Your task to perform on an android device: Go to sound settings Image 0: 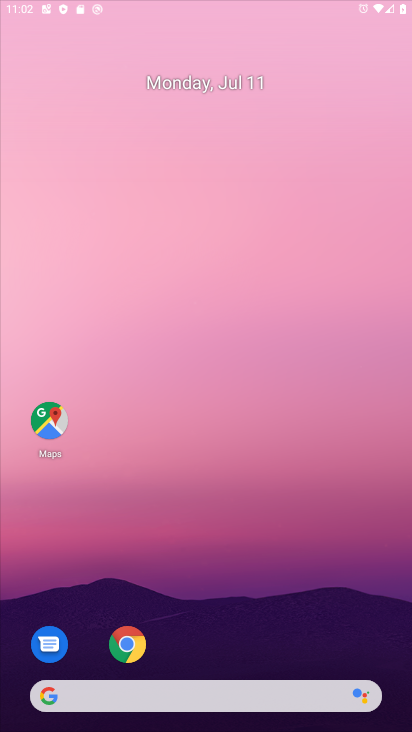
Step 0: press home button
Your task to perform on an android device: Go to sound settings Image 1: 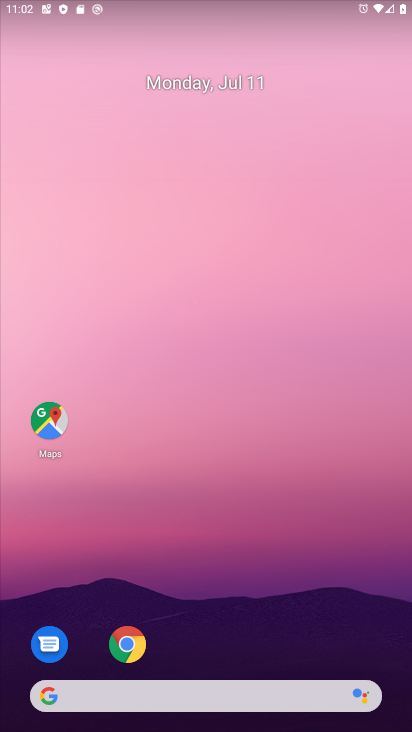
Step 1: drag from (215, 665) to (241, 77)
Your task to perform on an android device: Go to sound settings Image 2: 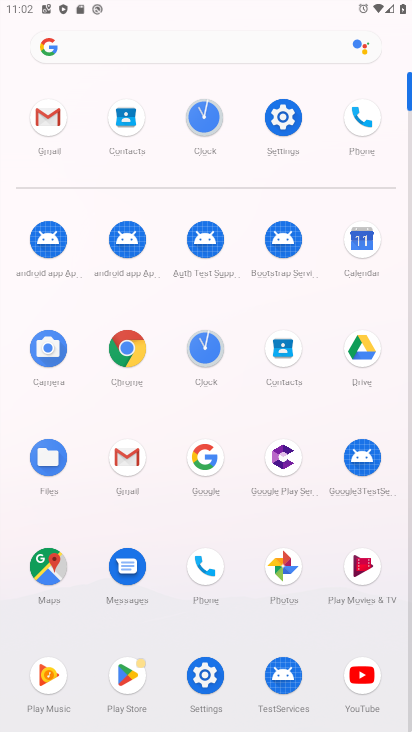
Step 2: click (282, 112)
Your task to perform on an android device: Go to sound settings Image 3: 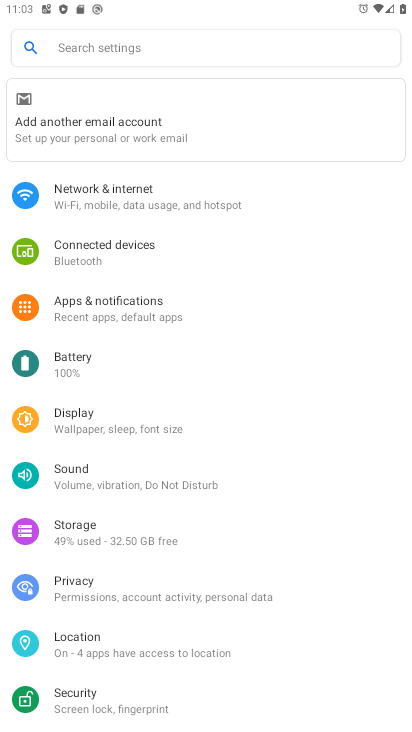
Step 3: click (118, 464)
Your task to perform on an android device: Go to sound settings Image 4: 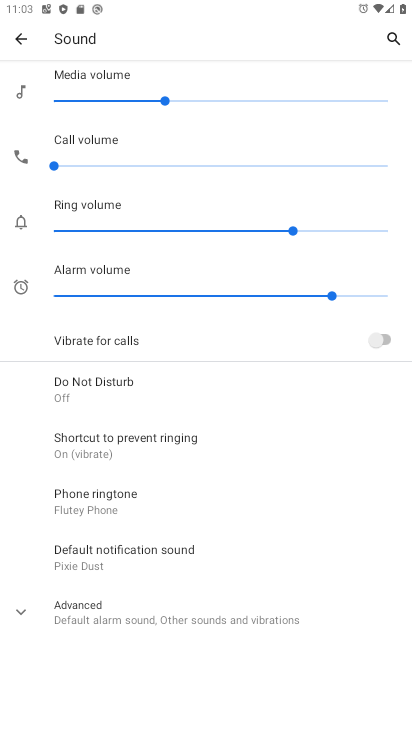
Step 4: click (30, 605)
Your task to perform on an android device: Go to sound settings Image 5: 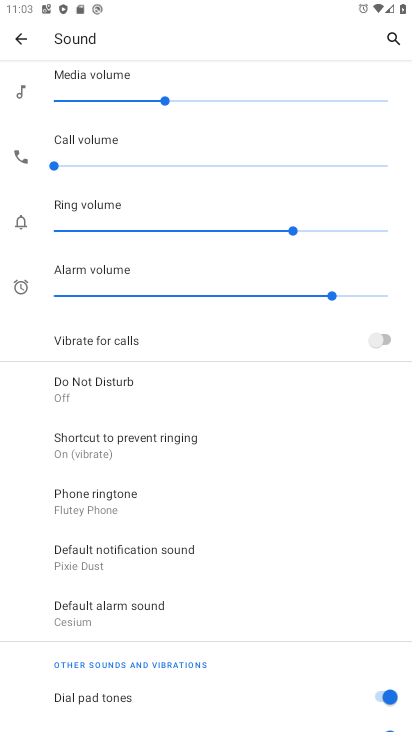
Step 5: task complete